Your task to perform on an android device: turn on bluetooth scan Image 0: 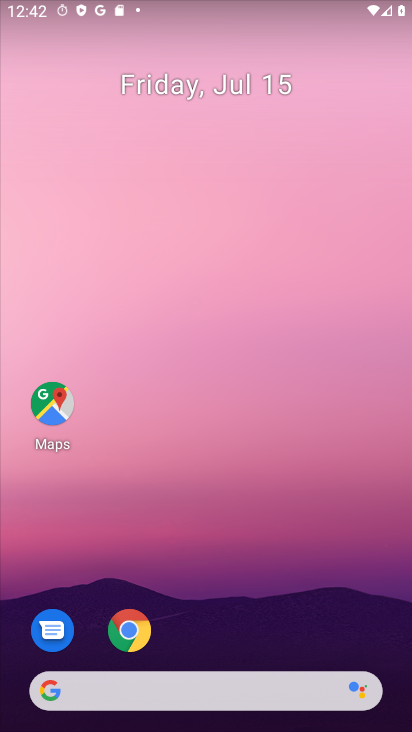
Step 0: drag from (202, 629) to (7, 194)
Your task to perform on an android device: turn on bluetooth scan Image 1: 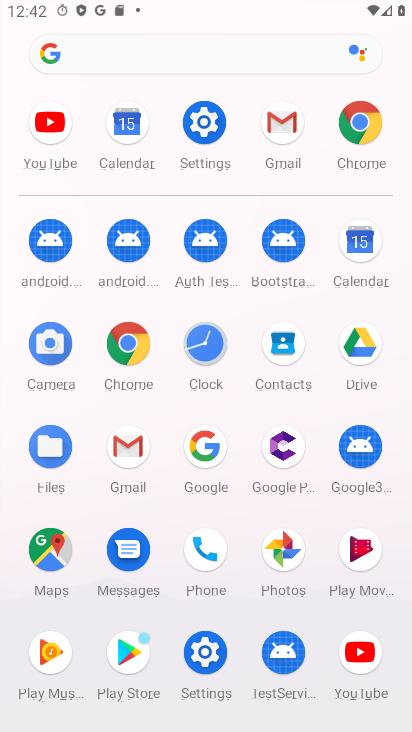
Step 1: click (198, 122)
Your task to perform on an android device: turn on bluetooth scan Image 2: 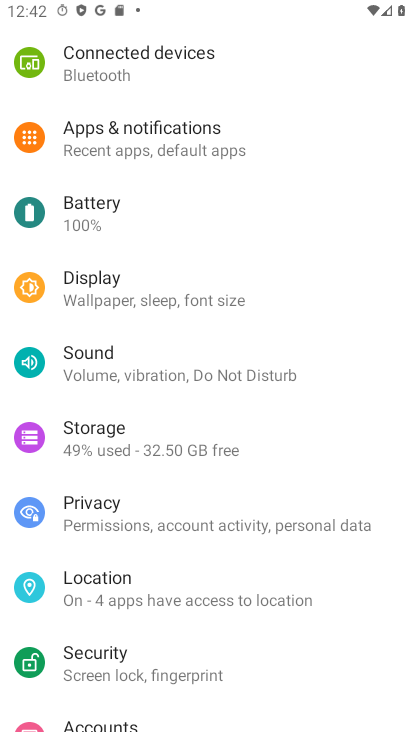
Step 2: click (128, 578)
Your task to perform on an android device: turn on bluetooth scan Image 3: 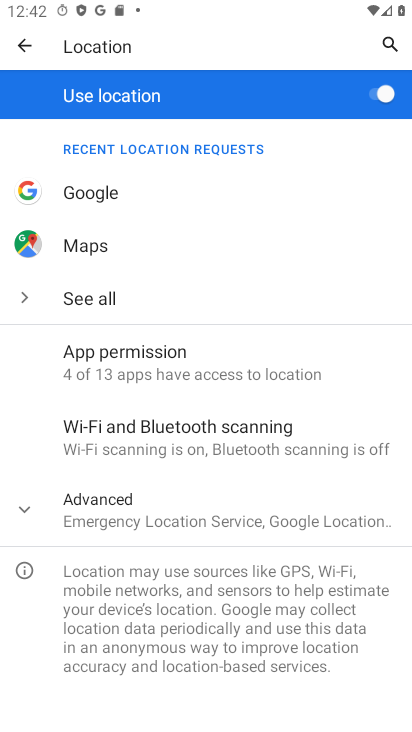
Step 3: click (87, 508)
Your task to perform on an android device: turn on bluetooth scan Image 4: 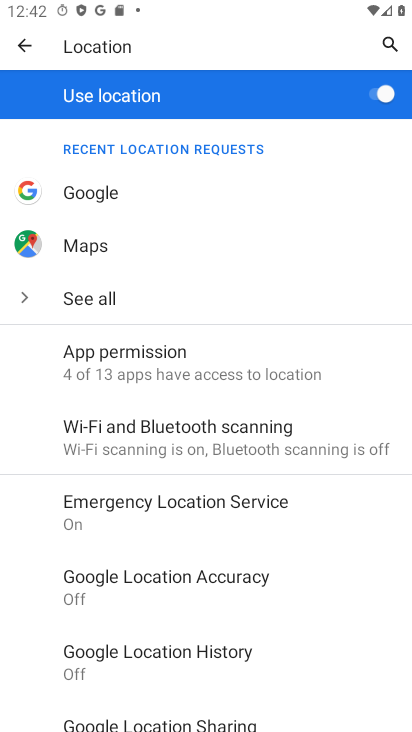
Step 4: drag from (218, 642) to (259, 286)
Your task to perform on an android device: turn on bluetooth scan Image 5: 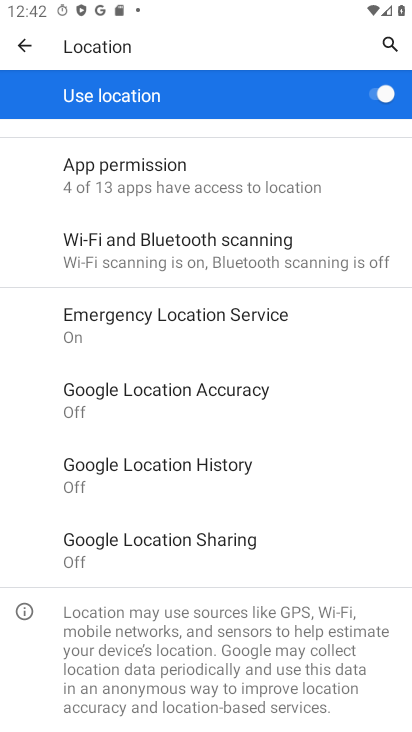
Step 5: drag from (247, 213) to (233, 662)
Your task to perform on an android device: turn on bluetooth scan Image 6: 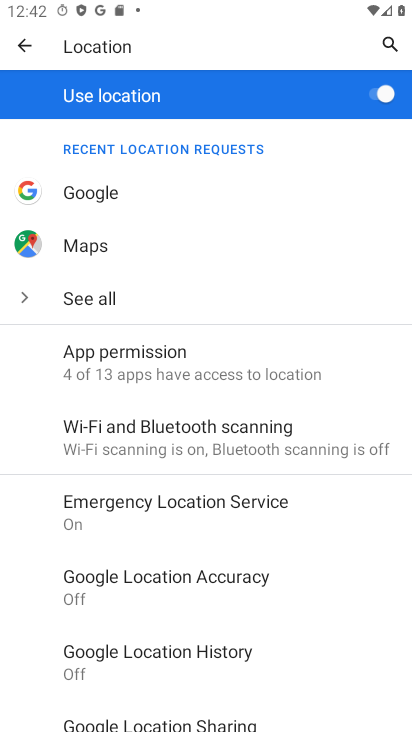
Step 6: click (223, 432)
Your task to perform on an android device: turn on bluetooth scan Image 7: 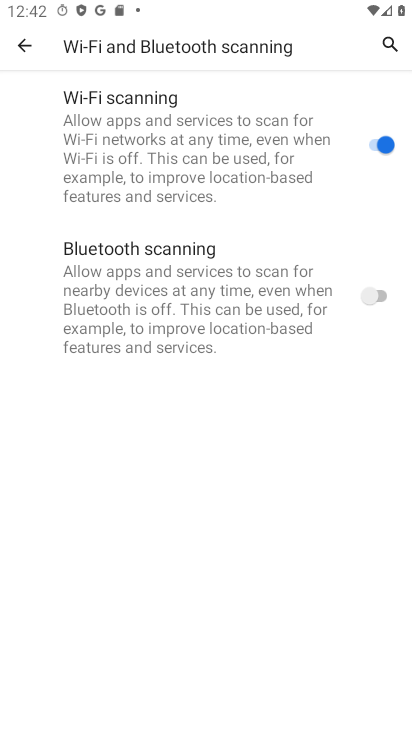
Step 7: click (271, 279)
Your task to perform on an android device: turn on bluetooth scan Image 8: 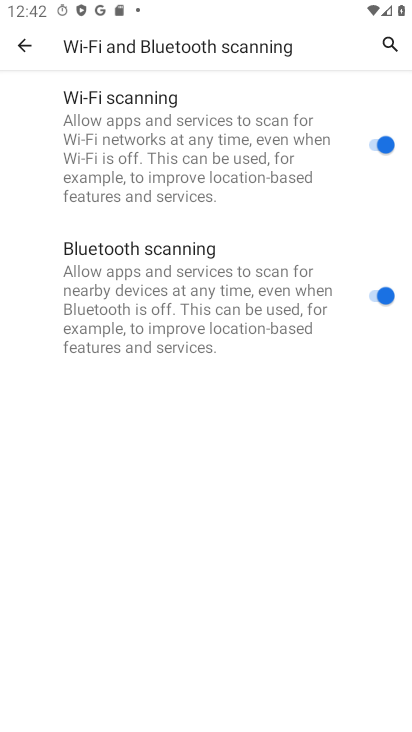
Step 8: task complete